Your task to perform on an android device: What's on my calendar today? Image 0: 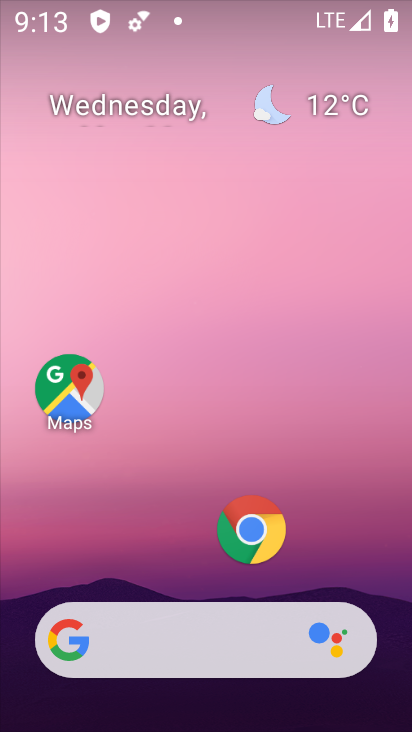
Step 0: drag from (196, 595) to (196, 199)
Your task to perform on an android device: What's on my calendar today? Image 1: 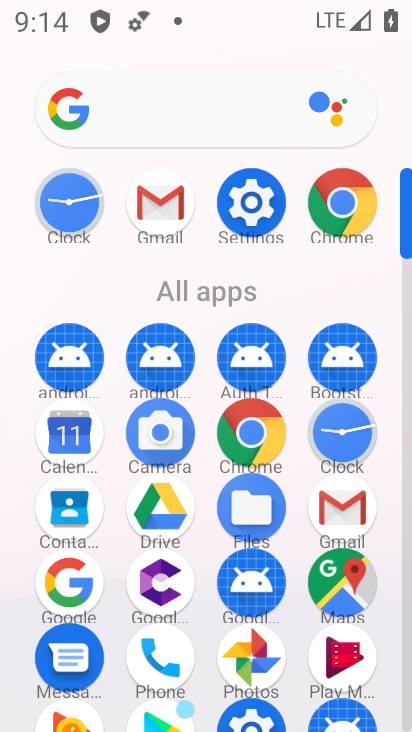
Step 1: click (66, 445)
Your task to perform on an android device: What's on my calendar today? Image 2: 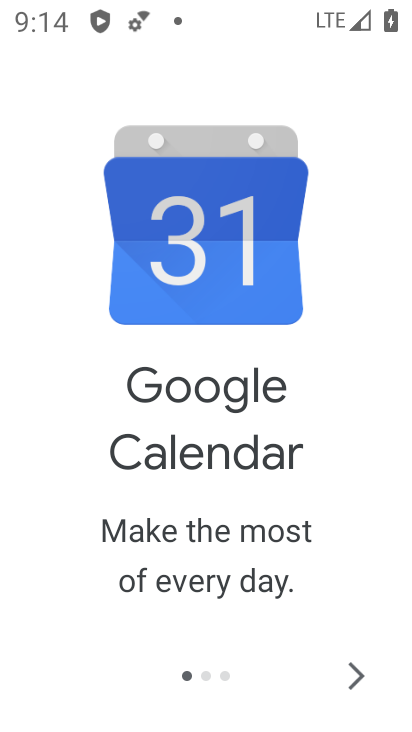
Step 2: click (348, 682)
Your task to perform on an android device: What's on my calendar today? Image 3: 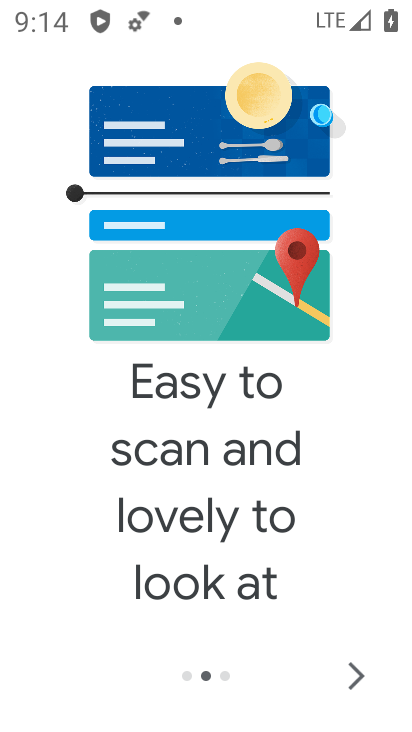
Step 3: click (354, 677)
Your task to perform on an android device: What's on my calendar today? Image 4: 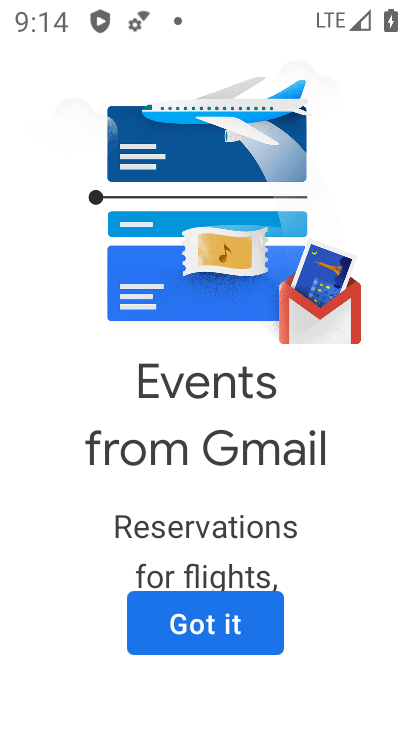
Step 4: click (247, 630)
Your task to perform on an android device: What's on my calendar today? Image 5: 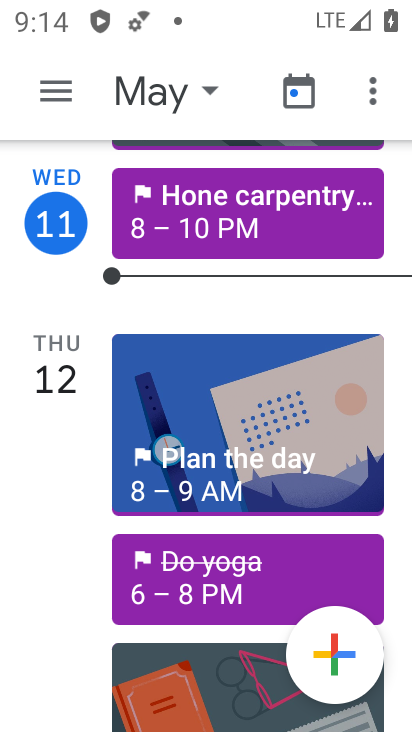
Step 5: drag from (238, 281) to (250, 554)
Your task to perform on an android device: What's on my calendar today? Image 6: 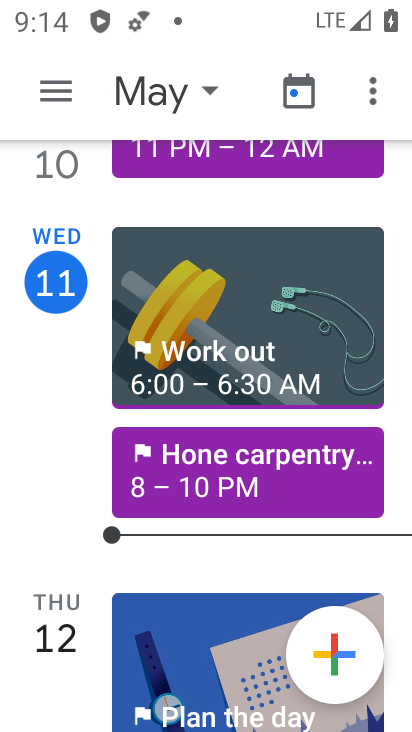
Step 6: drag from (217, 622) to (215, 310)
Your task to perform on an android device: What's on my calendar today? Image 7: 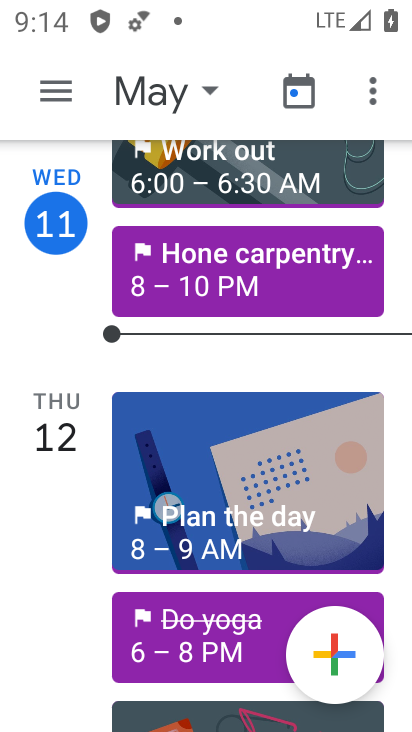
Step 7: click (221, 512)
Your task to perform on an android device: What's on my calendar today? Image 8: 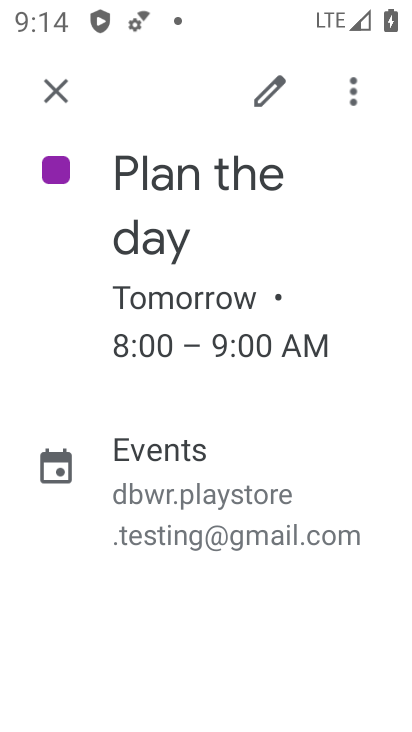
Step 8: task complete